Your task to perform on an android device: open device folders in google photos Image 0: 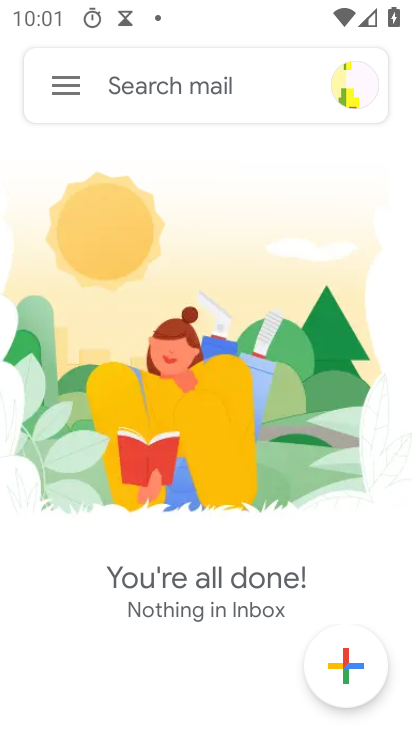
Step 0: press home button
Your task to perform on an android device: open device folders in google photos Image 1: 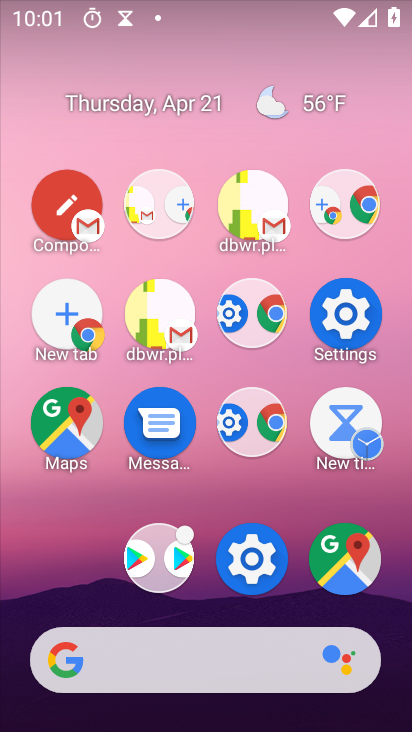
Step 1: drag from (298, 645) to (200, 132)
Your task to perform on an android device: open device folders in google photos Image 2: 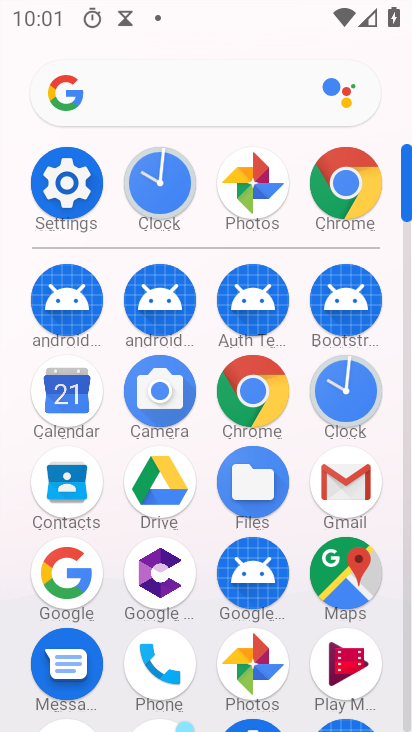
Step 2: click (251, 662)
Your task to perform on an android device: open device folders in google photos Image 3: 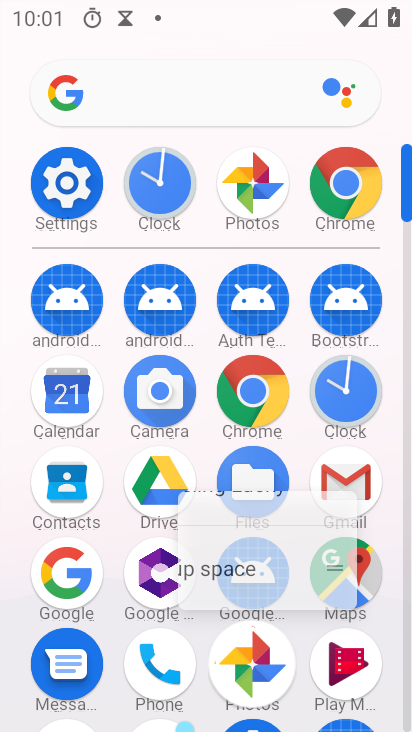
Step 3: drag from (244, 654) to (244, 614)
Your task to perform on an android device: open device folders in google photos Image 4: 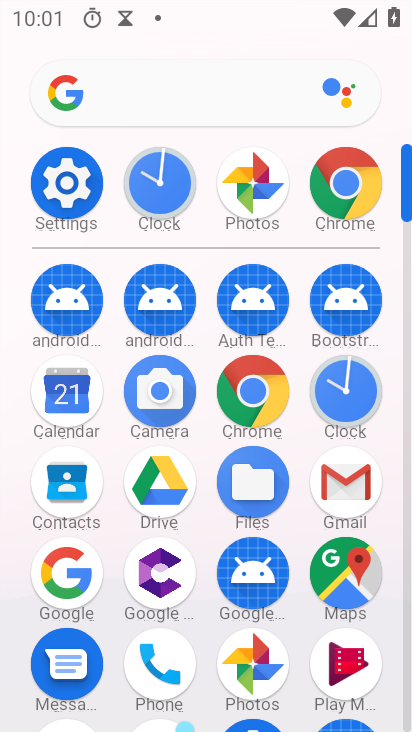
Step 4: click (252, 654)
Your task to perform on an android device: open device folders in google photos Image 5: 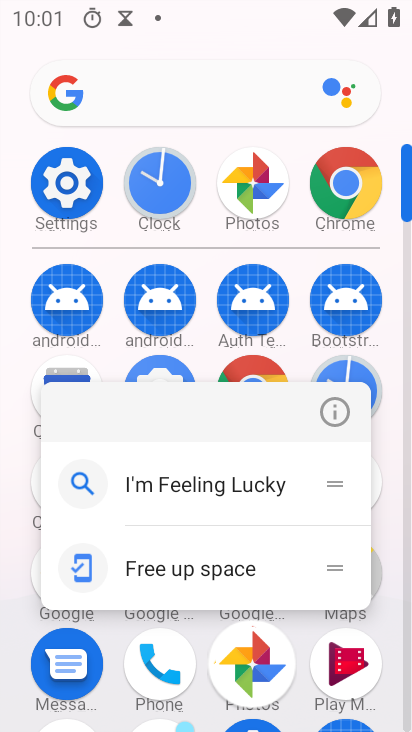
Step 5: click (250, 665)
Your task to perform on an android device: open device folders in google photos Image 6: 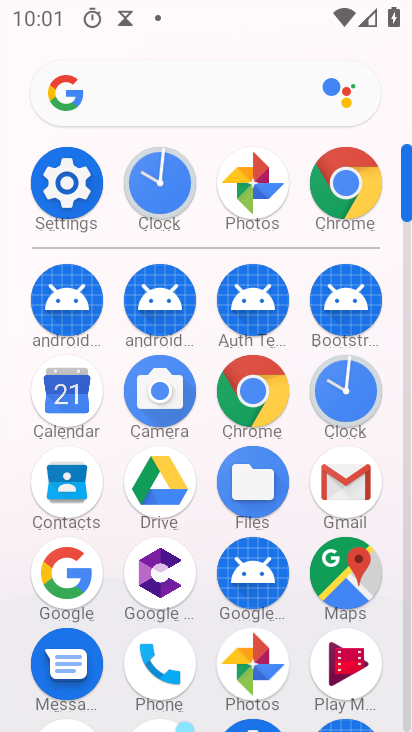
Step 6: click (251, 664)
Your task to perform on an android device: open device folders in google photos Image 7: 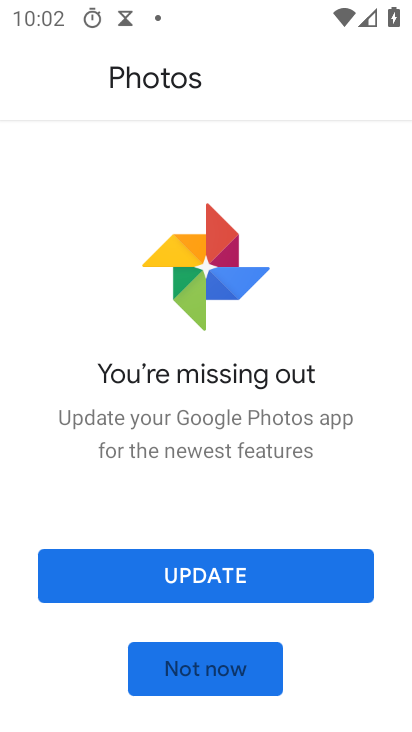
Step 7: click (209, 664)
Your task to perform on an android device: open device folders in google photos Image 8: 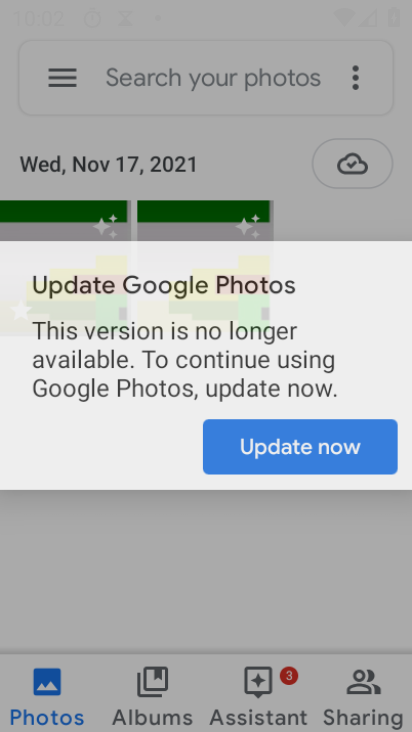
Step 8: click (210, 665)
Your task to perform on an android device: open device folders in google photos Image 9: 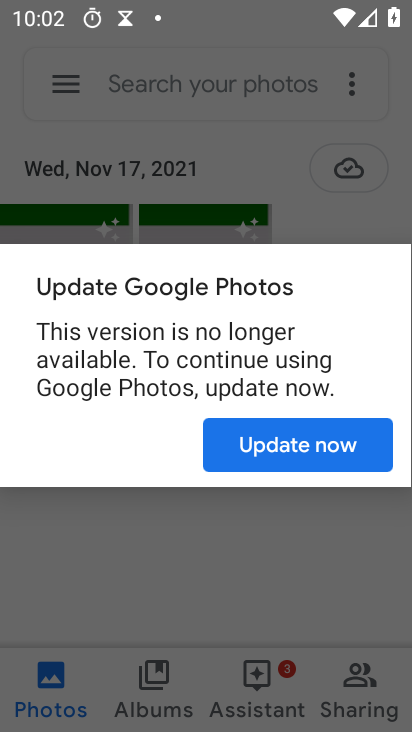
Step 9: click (339, 442)
Your task to perform on an android device: open device folders in google photos Image 10: 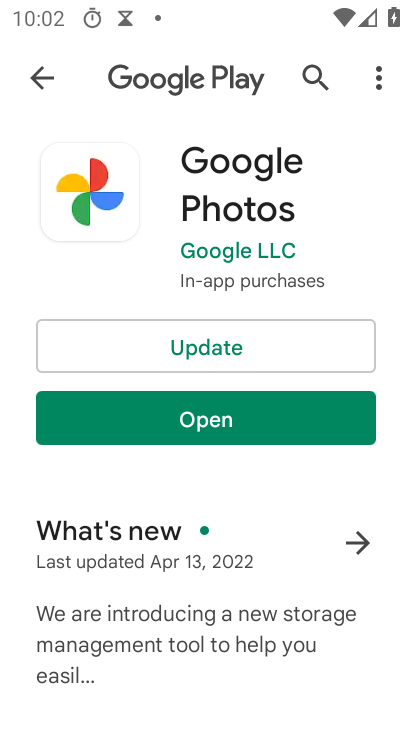
Step 10: click (209, 344)
Your task to perform on an android device: open device folders in google photos Image 11: 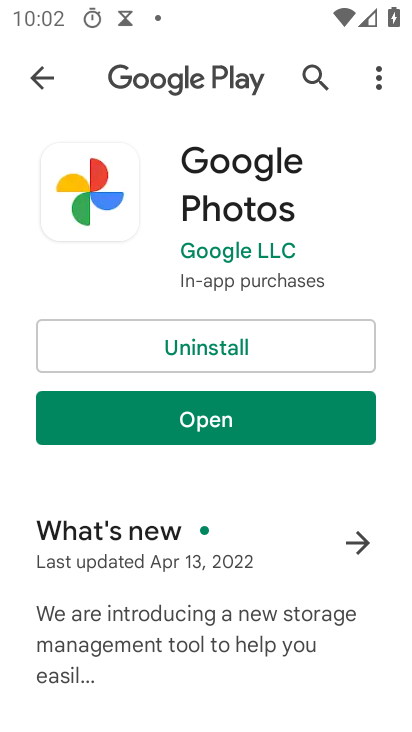
Step 11: click (199, 420)
Your task to perform on an android device: open device folders in google photos Image 12: 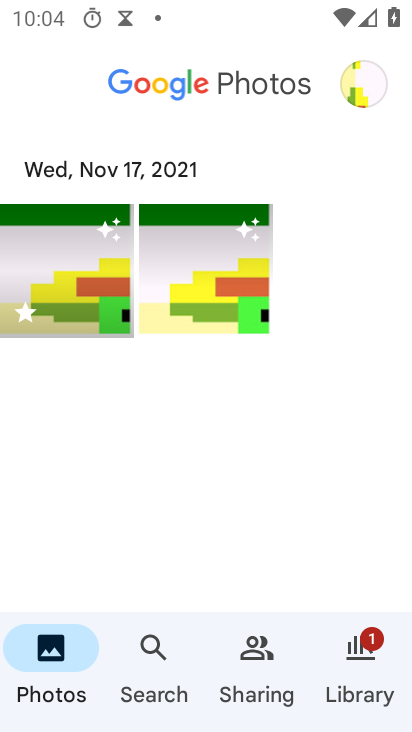
Step 12: task complete